Your task to perform on an android device: snooze an email in the gmail app Image 0: 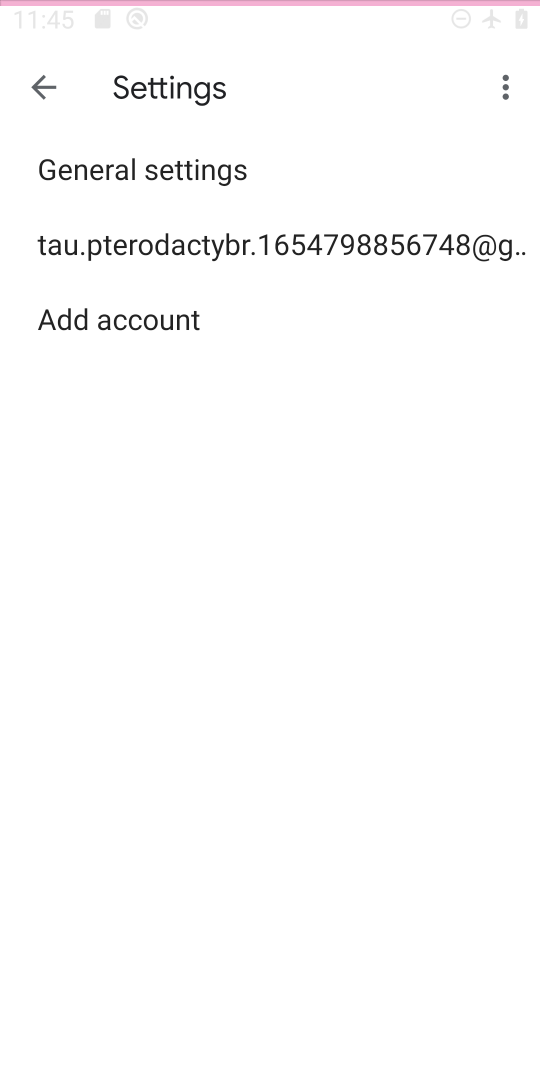
Step 0: drag from (350, 125) to (345, 1)
Your task to perform on an android device: snooze an email in the gmail app Image 1: 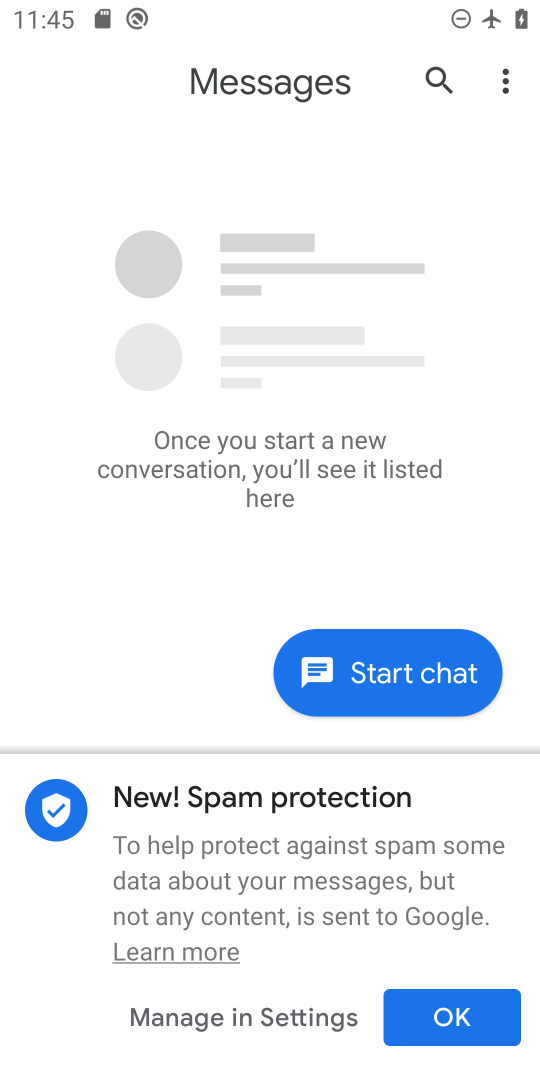
Step 1: press home button
Your task to perform on an android device: snooze an email in the gmail app Image 2: 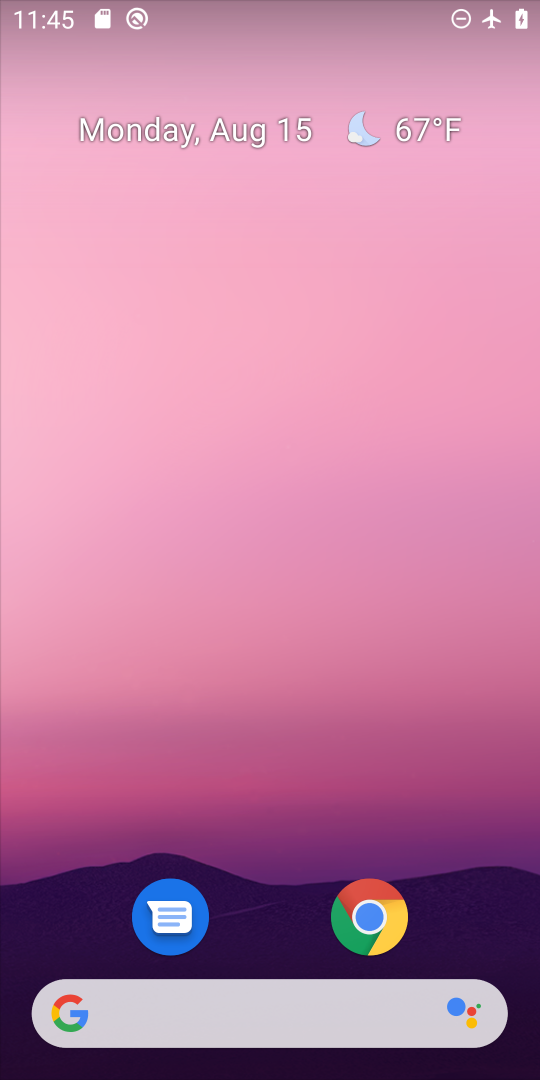
Step 2: drag from (292, 832) to (369, 1)
Your task to perform on an android device: snooze an email in the gmail app Image 3: 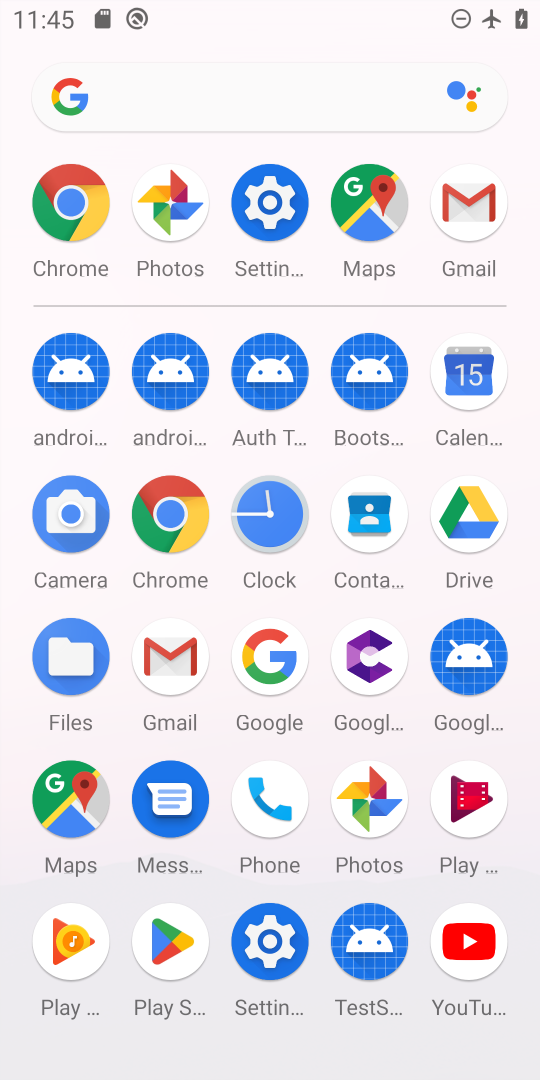
Step 3: click (474, 281)
Your task to perform on an android device: snooze an email in the gmail app Image 4: 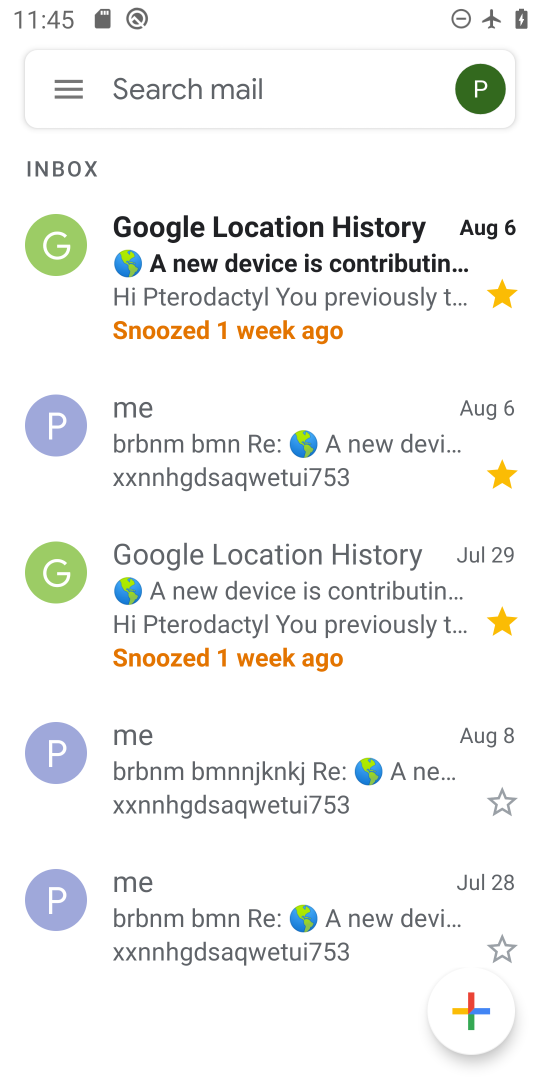
Step 4: click (287, 455)
Your task to perform on an android device: snooze an email in the gmail app Image 5: 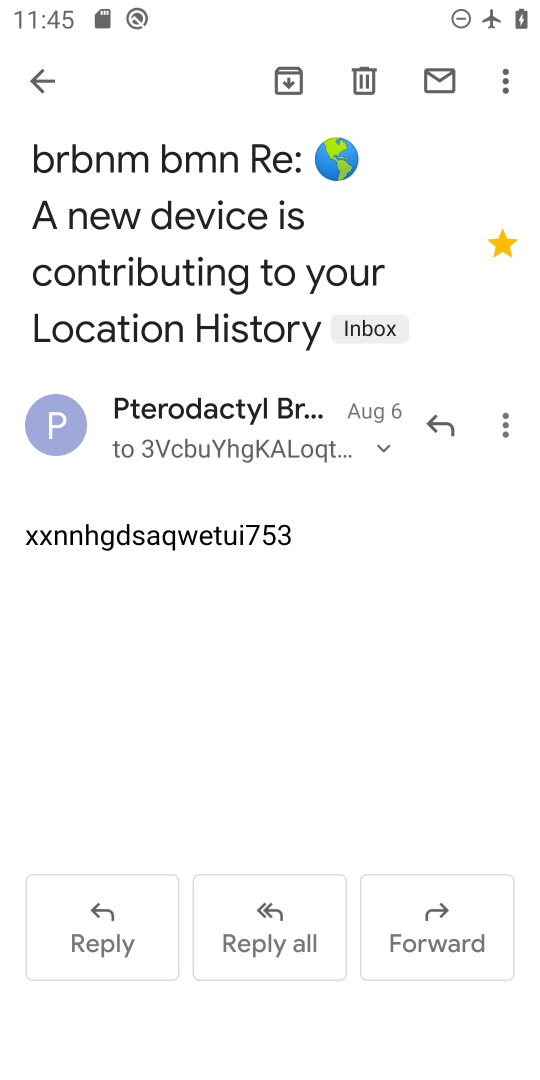
Step 5: click (500, 92)
Your task to perform on an android device: snooze an email in the gmail app Image 6: 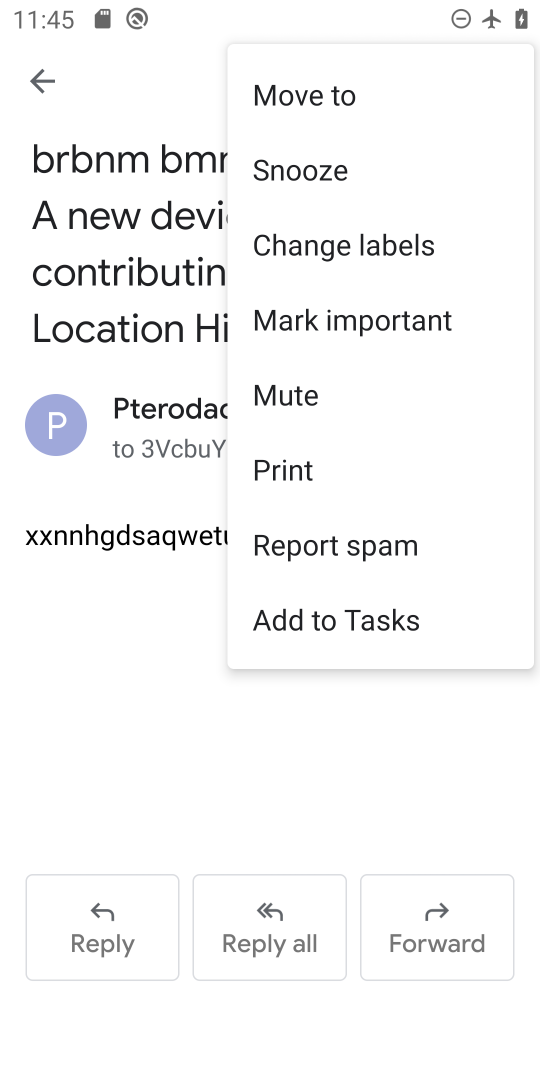
Step 6: click (377, 174)
Your task to perform on an android device: snooze an email in the gmail app Image 7: 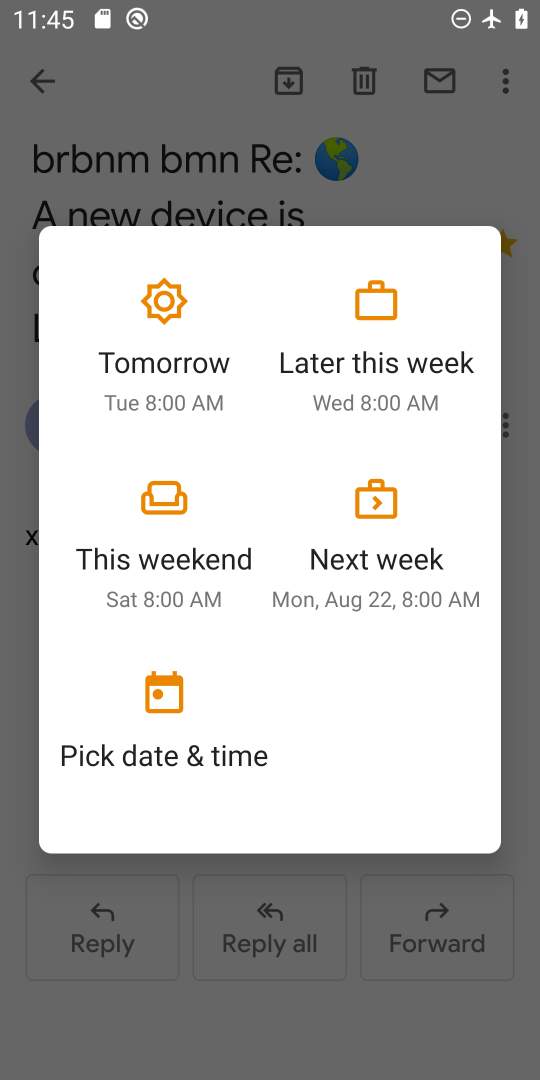
Step 7: click (225, 363)
Your task to perform on an android device: snooze an email in the gmail app Image 8: 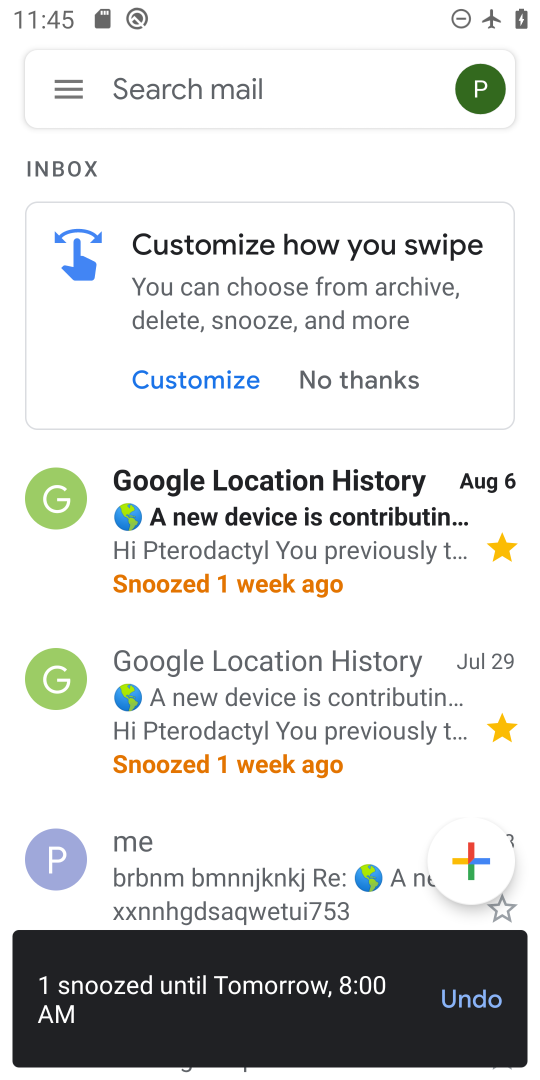
Step 8: task complete